Your task to perform on an android device: open wifi settings Image 0: 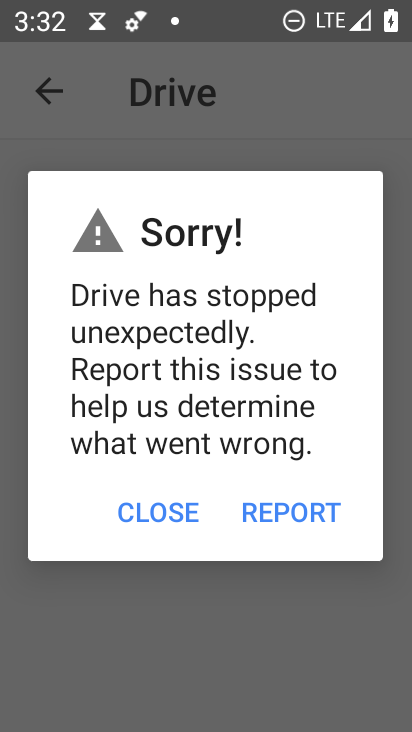
Step 0: press home button
Your task to perform on an android device: open wifi settings Image 1: 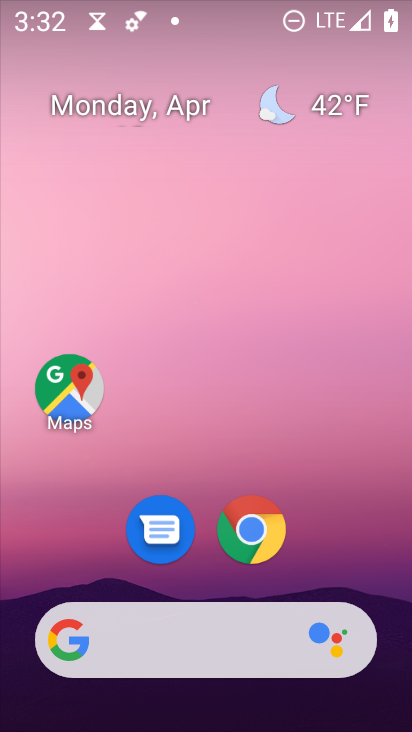
Step 1: drag from (183, 502) to (273, 122)
Your task to perform on an android device: open wifi settings Image 2: 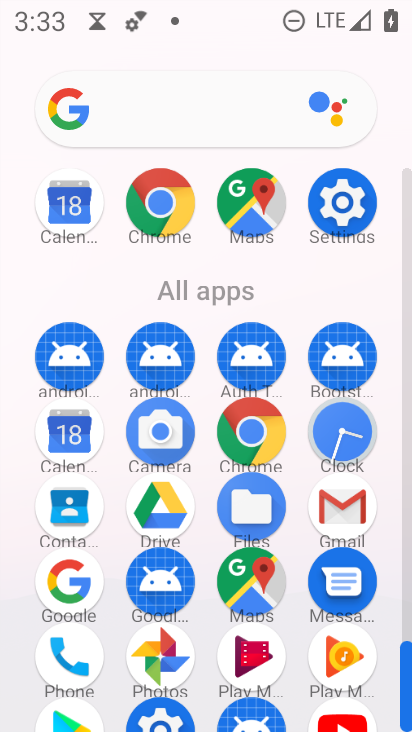
Step 2: click (363, 211)
Your task to perform on an android device: open wifi settings Image 3: 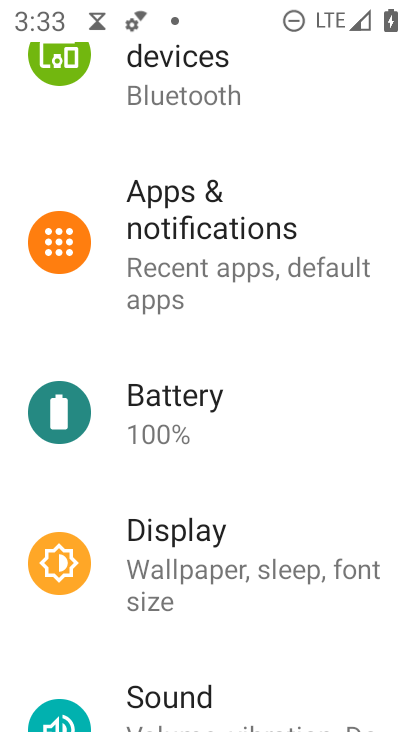
Step 3: drag from (259, 180) to (218, 663)
Your task to perform on an android device: open wifi settings Image 4: 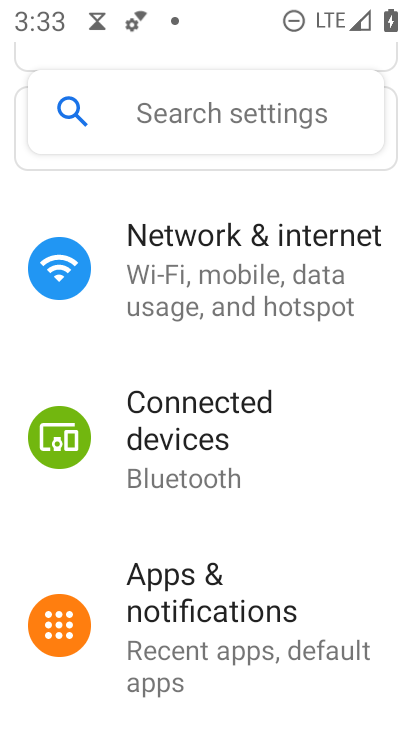
Step 4: click (246, 297)
Your task to perform on an android device: open wifi settings Image 5: 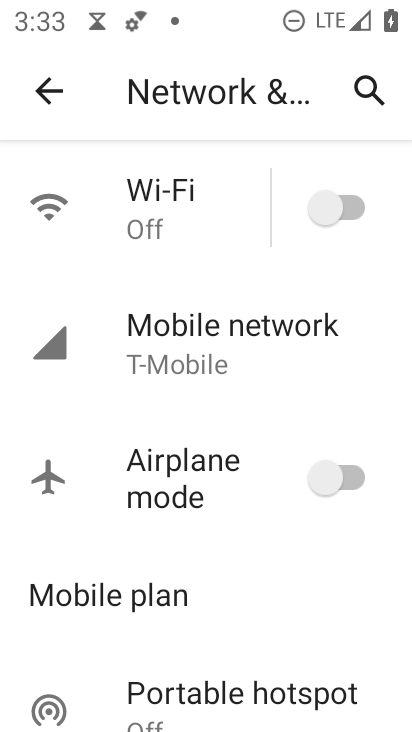
Step 5: click (182, 216)
Your task to perform on an android device: open wifi settings Image 6: 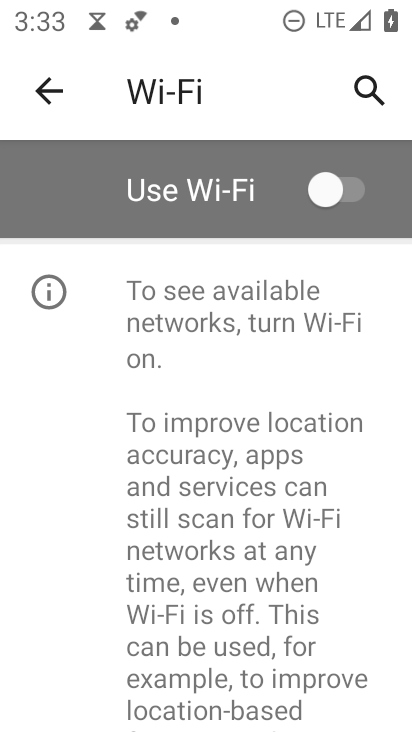
Step 6: task complete